Your task to perform on an android device: Open settings Image 0: 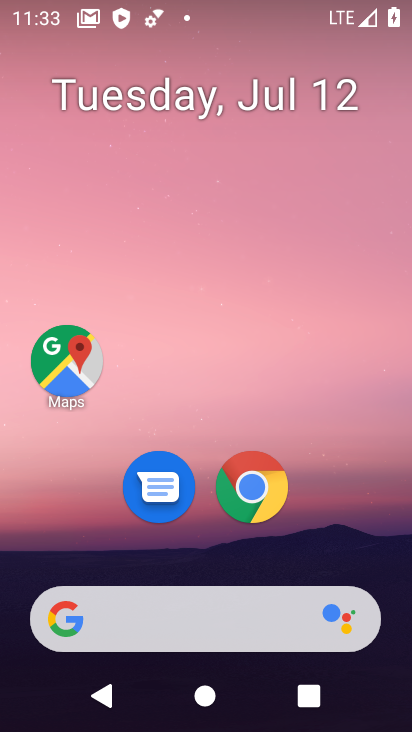
Step 0: drag from (232, 543) to (219, 28)
Your task to perform on an android device: Open settings Image 1: 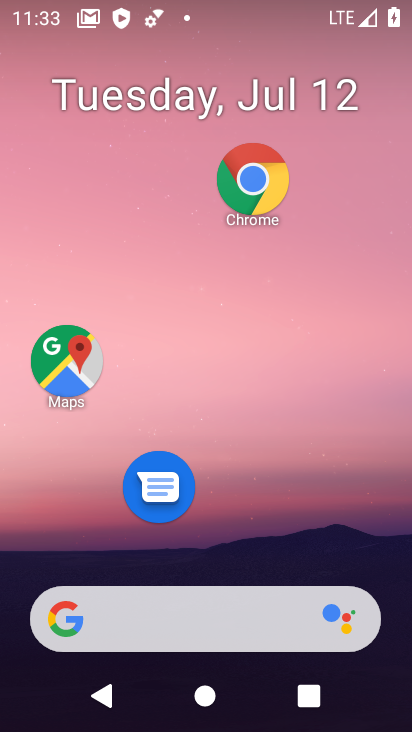
Step 1: drag from (209, 540) to (290, 16)
Your task to perform on an android device: Open settings Image 2: 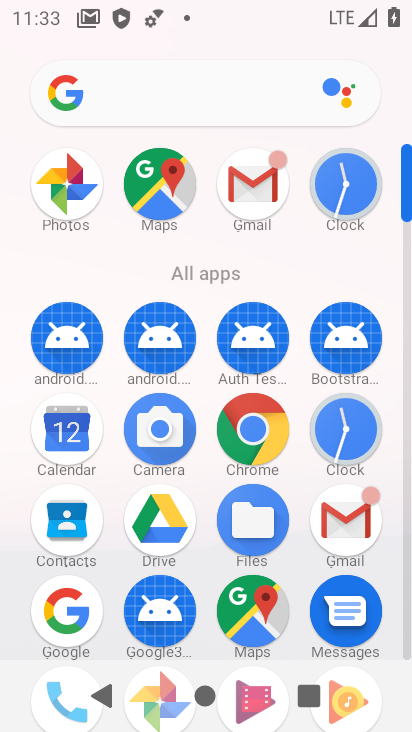
Step 2: drag from (208, 583) to (56, 87)
Your task to perform on an android device: Open settings Image 3: 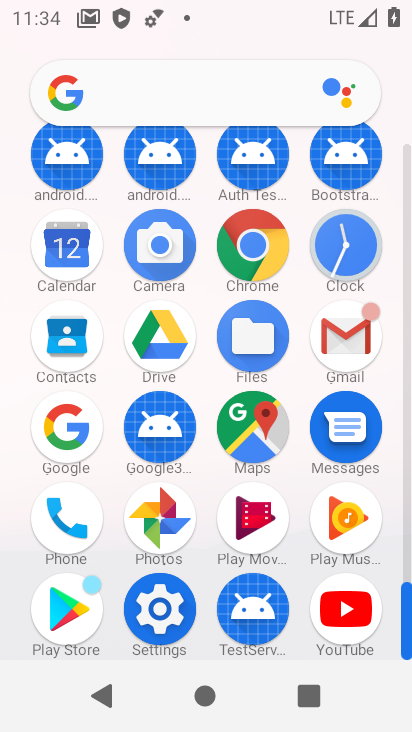
Step 3: click (175, 621)
Your task to perform on an android device: Open settings Image 4: 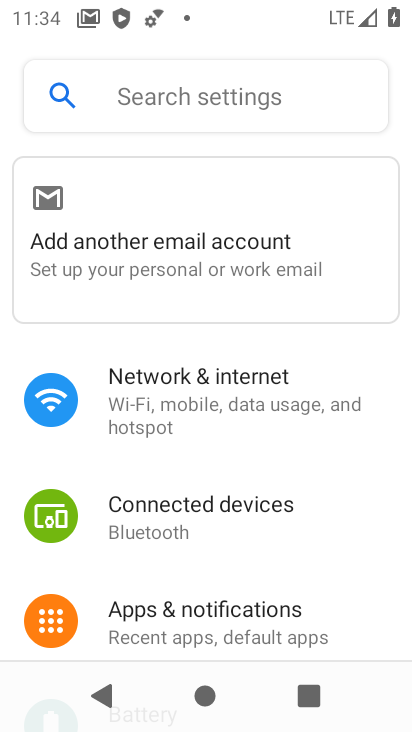
Step 4: drag from (181, 613) to (205, 206)
Your task to perform on an android device: Open settings Image 5: 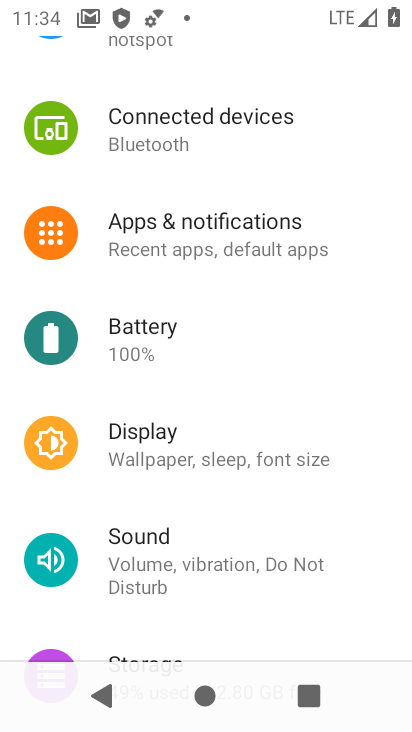
Step 5: click (123, 434)
Your task to perform on an android device: Open settings Image 6: 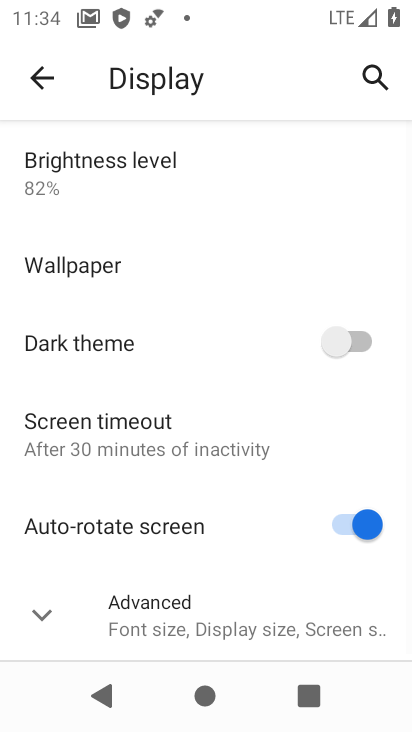
Step 6: click (166, 613)
Your task to perform on an android device: Open settings Image 7: 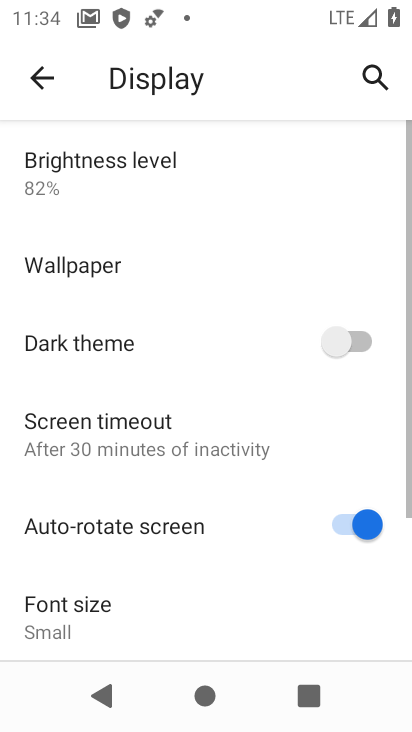
Step 7: drag from (166, 613) to (170, 253)
Your task to perform on an android device: Open settings Image 8: 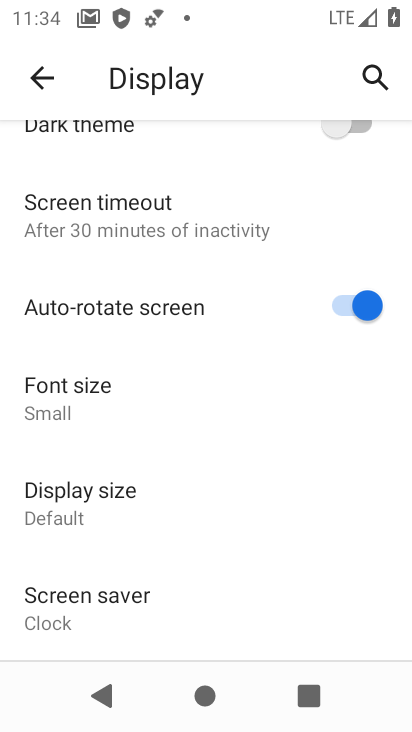
Step 8: click (111, 485)
Your task to perform on an android device: Open settings Image 9: 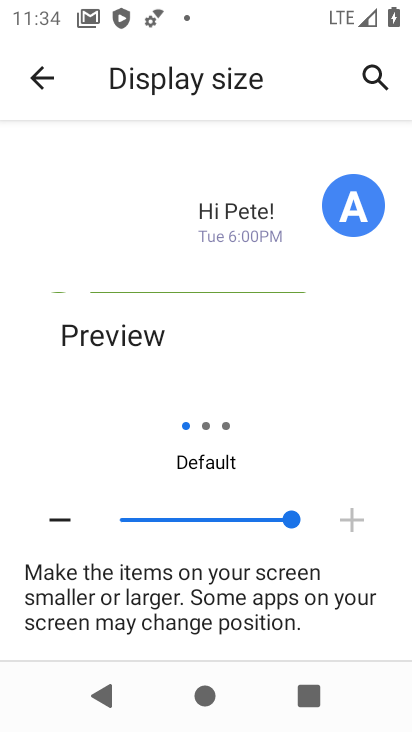
Step 9: click (208, 426)
Your task to perform on an android device: Open settings Image 10: 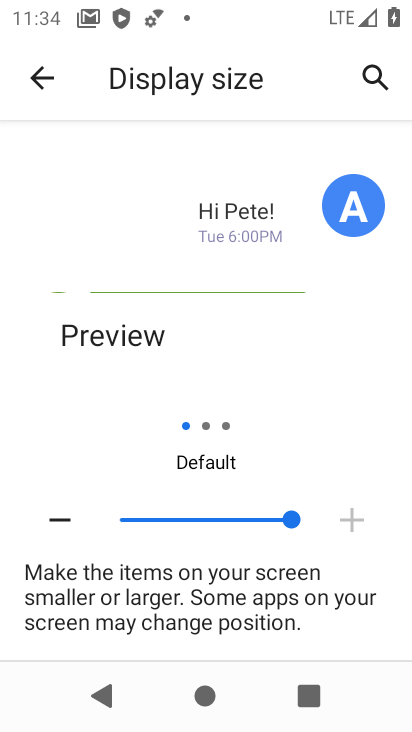
Step 10: click (208, 426)
Your task to perform on an android device: Open settings Image 11: 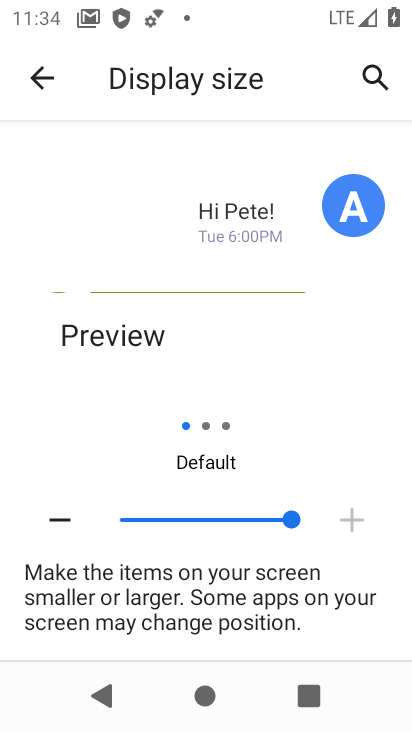
Step 11: click (259, 518)
Your task to perform on an android device: Open settings Image 12: 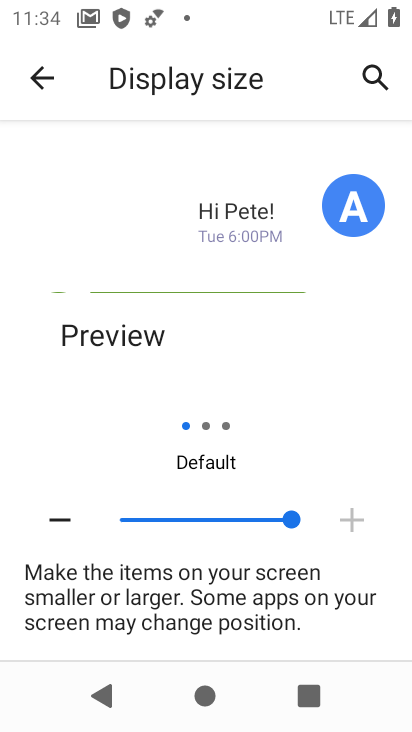
Step 12: click (222, 518)
Your task to perform on an android device: Open settings Image 13: 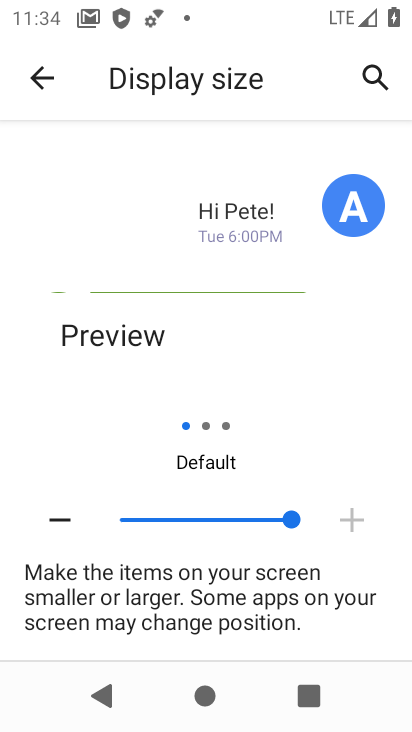
Step 13: click (53, 519)
Your task to perform on an android device: Open settings Image 14: 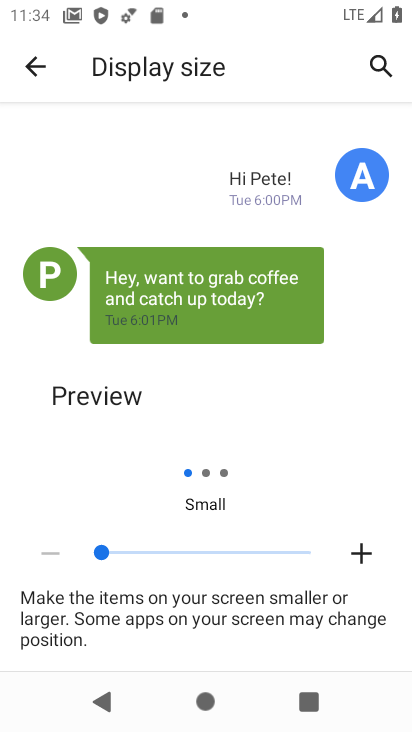
Step 14: click (48, 56)
Your task to perform on an android device: Open settings Image 15: 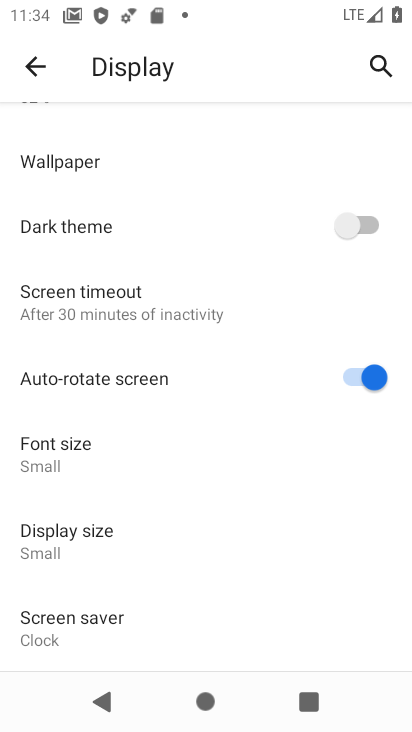
Step 15: click (89, 523)
Your task to perform on an android device: Open settings Image 16: 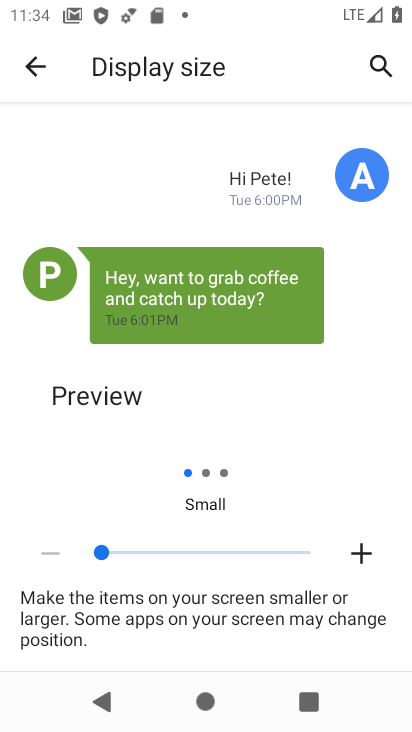
Step 16: click (27, 59)
Your task to perform on an android device: Open settings Image 17: 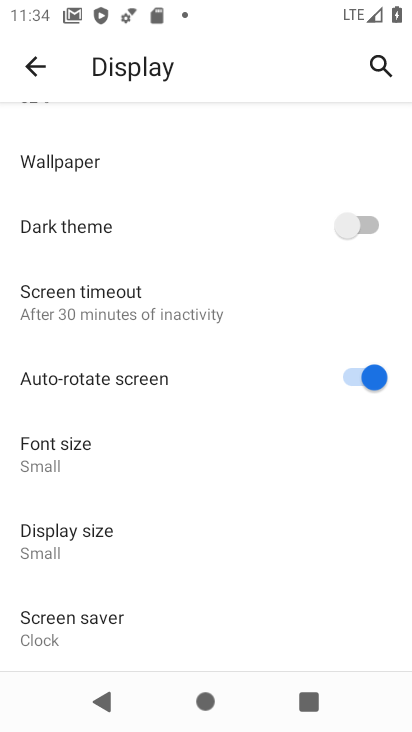
Step 17: click (105, 440)
Your task to perform on an android device: Open settings Image 18: 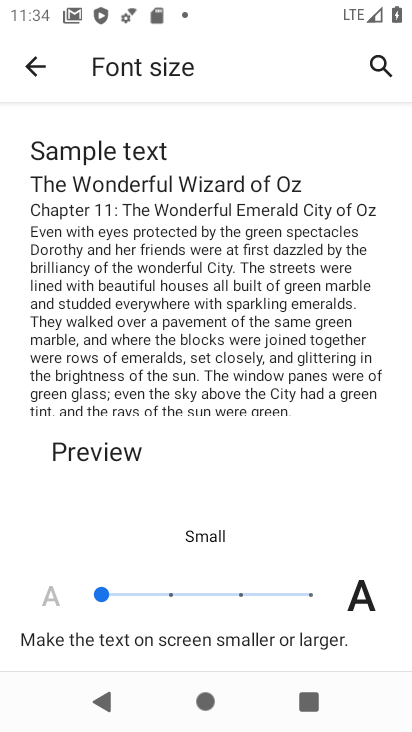
Step 18: click (176, 593)
Your task to perform on an android device: Open settings Image 19: 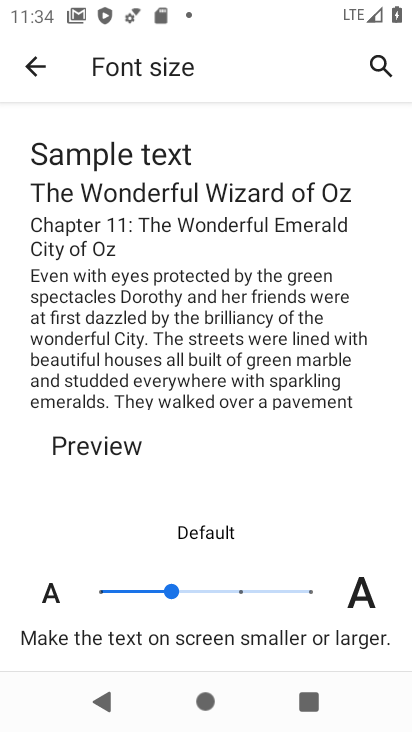
Step 19: click (98, 590)
Your task to perform on an android device: Open settings Image 20: 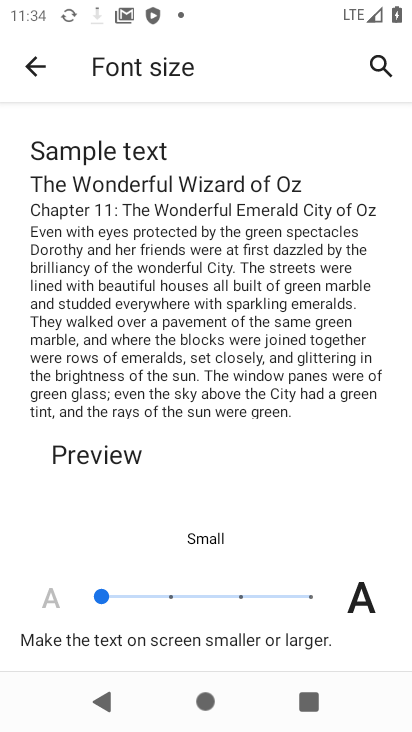
Step 20: task complete